Your task to perform on an android device: What's the weather today? Image 0: 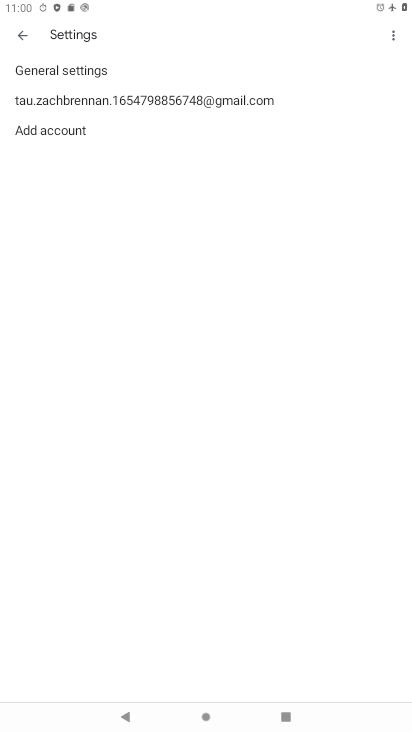
Step 0: click (20, 38)
Your task to perform on an android device: What's the weather today? Image 1: 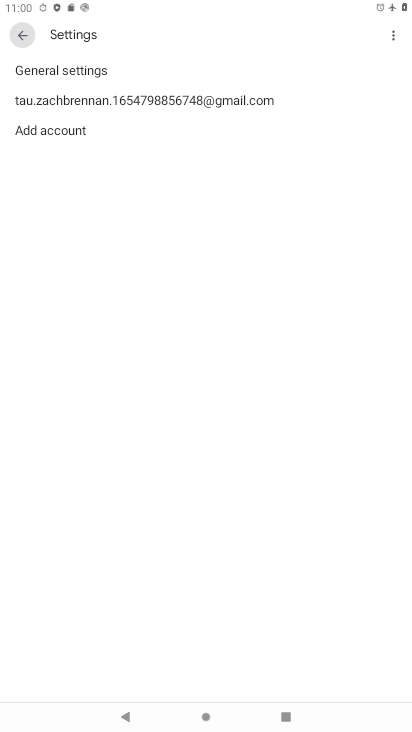
Step 1: click (25, 38)
Your task to perform on an android device: What's the weather today? Image 2: 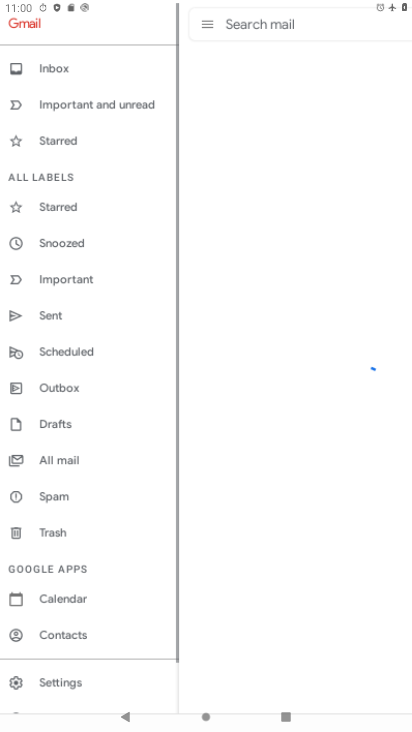
Step 2: click (26, 39)
Your task to perform on an android device: What's the weather today? Image 3: 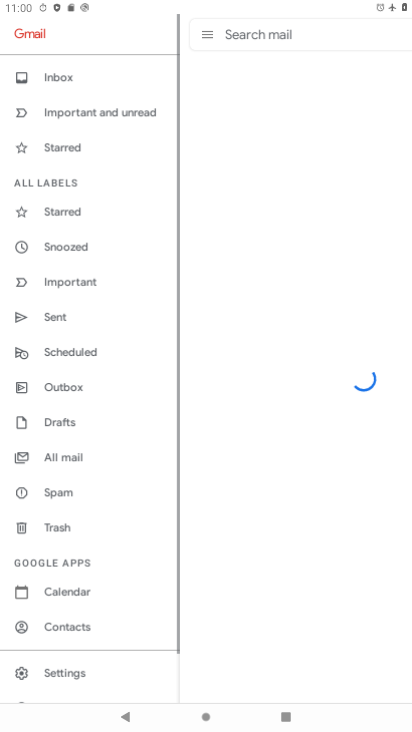
Step 3: click (21, 38)
Your task to perform on an android device: What's the weather today? Image 4: 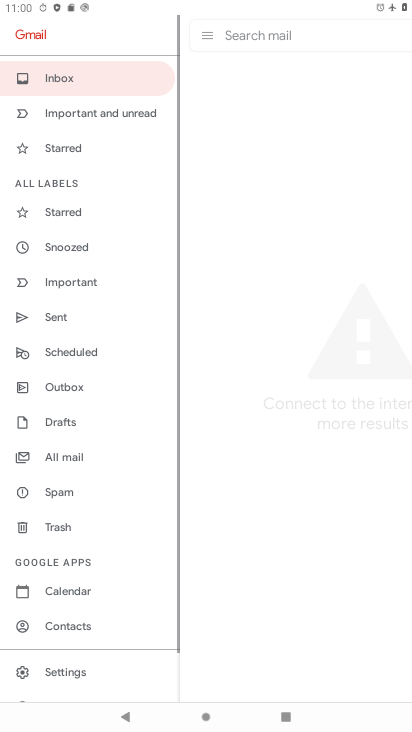
Step 4: click (21, 38)
Your task to perform on an android device: What's the weather today? Image 5: 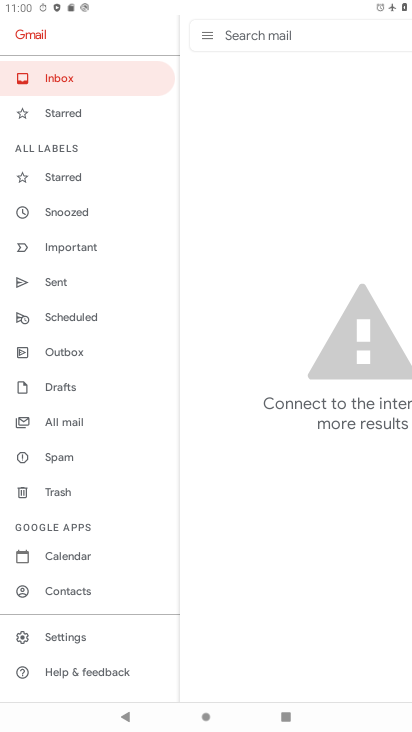
Step 5: click (24, 37)
Your task to perform on an android device: What's the weather today? Image 6: 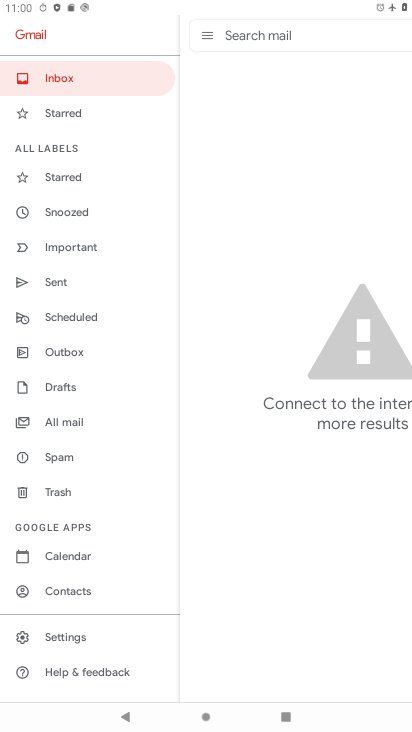
Step 6: press home button
Your task to perform on an android device: What's the weather today? Image 7: 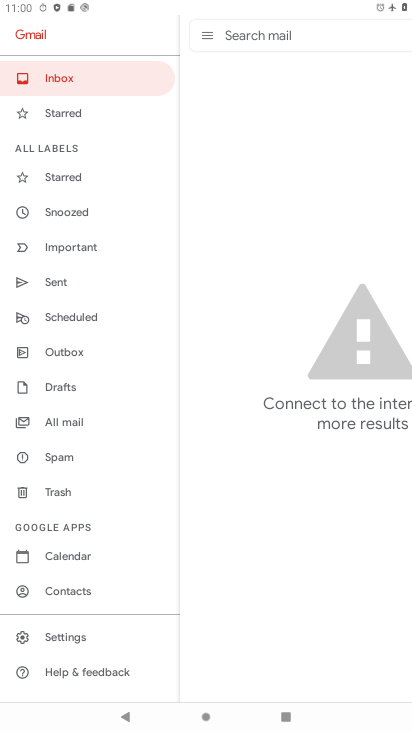
Step 7: press home button
Your task to perform on an android device: What's the weather today? Image 8: 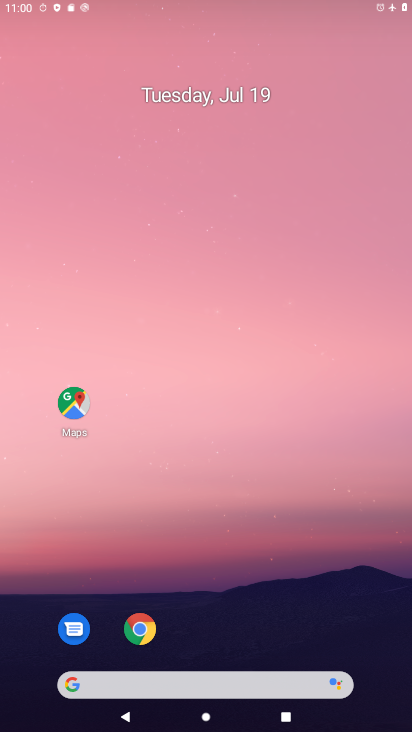
Step 8: press home button
Your task to perform on an android device: What's the weather today? Image 9: 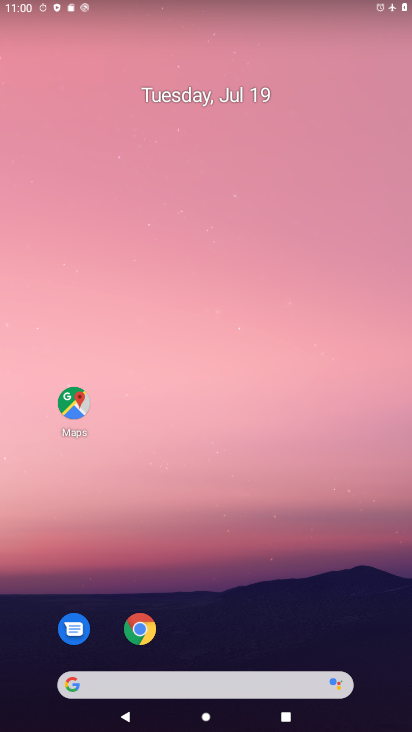
Step 9: press home button
Your task to perform on an android device: What's the weather today? Image 10: 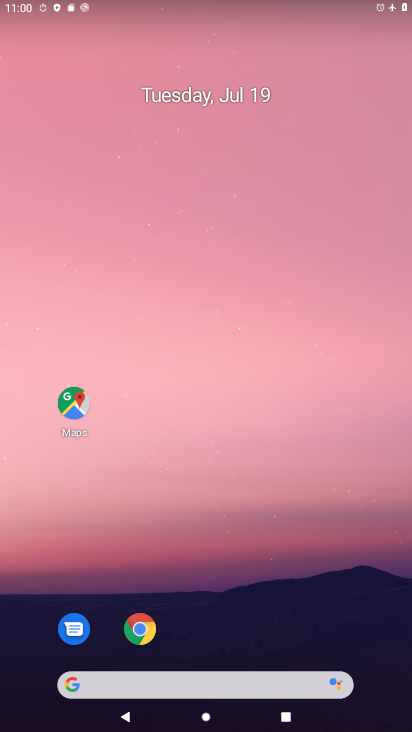
Step 10: drag from (172, 555) to (110, 103)
Your task to perform on an android device: What's the weather today? Image 11: 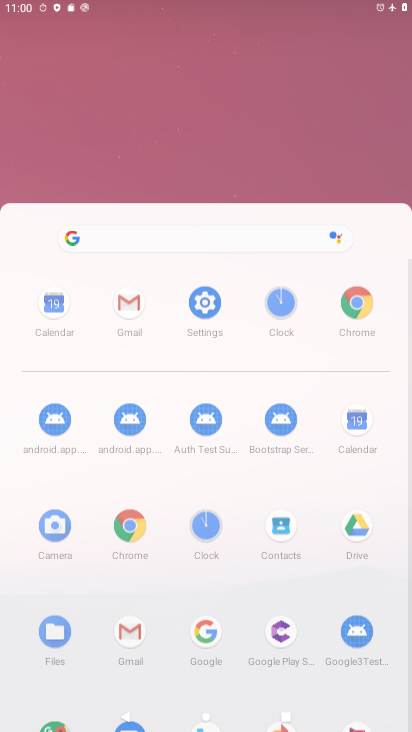
Step 11: drag from (167, 496) to (140, 4)
Your task to perform on an android device: What's the weather today? Image 12: 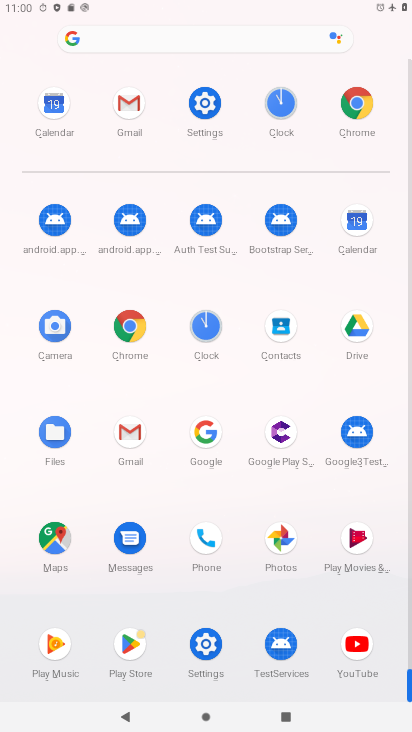
Step 12: click (357, 98)
Your task to perform on an android device: What's the weather today? Image 13: 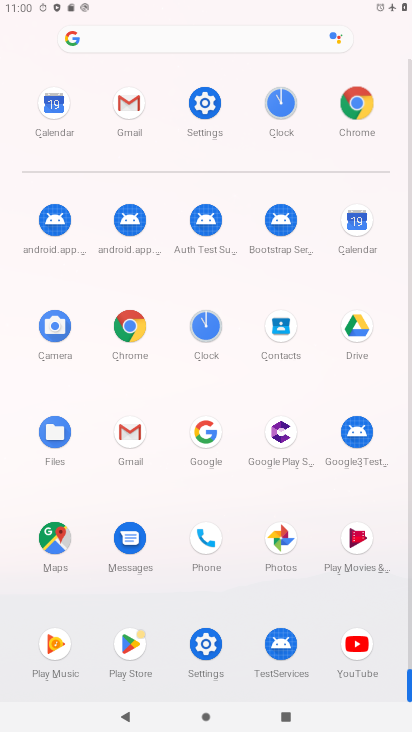
Step 13: click (360, 97)
Your task to perform on an android device: What's the weather today? Image 14: 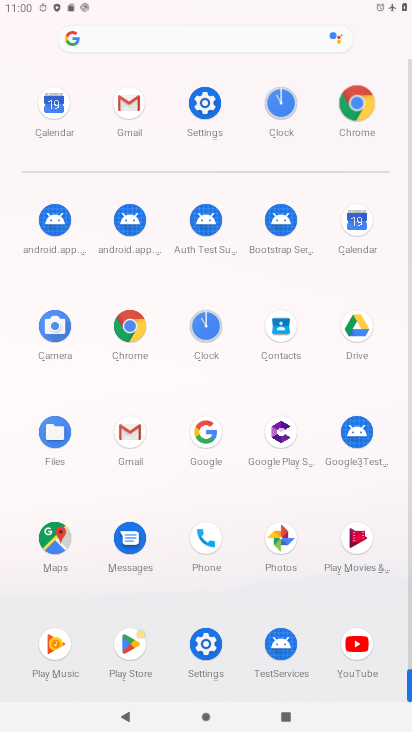
Step 14: click (360, 97)
Your task to perform on an android device: What's the weather today? Image 15: 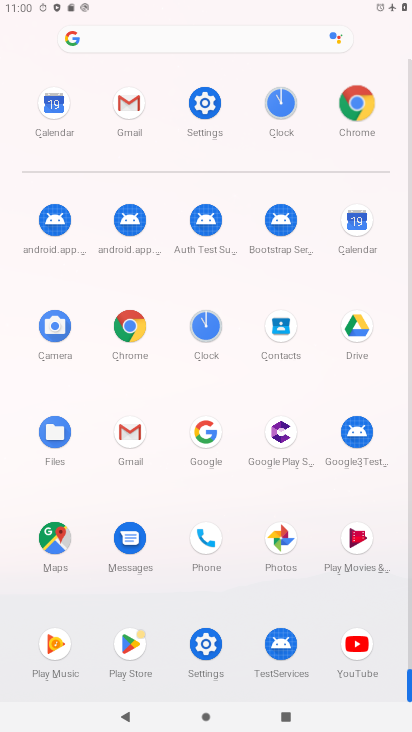
Step 15: click (360, 97)
Your task to perform on an android device: What's the weather today? Image 16: 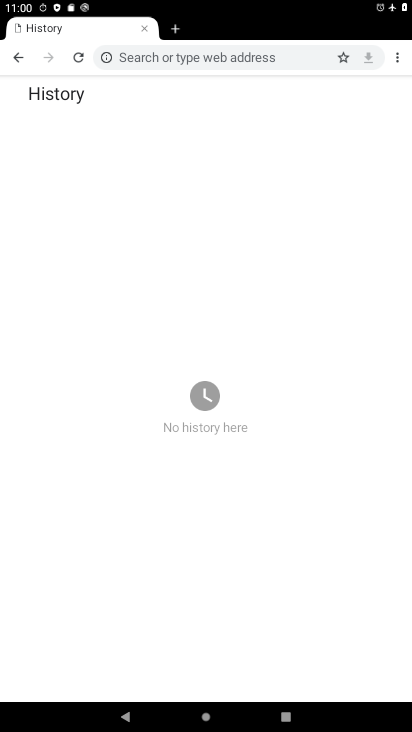
Step 16: drag from (399, 53) to (292, 51)
Your task to perform on an android device: What's the weather today? Image 17: 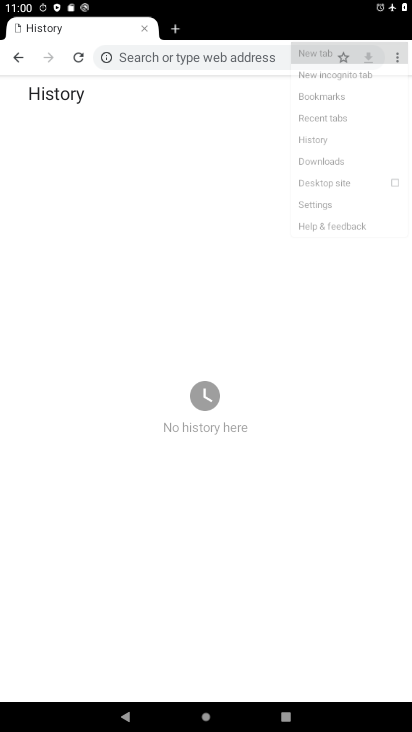
Step 17: click (292, 51)
Your task to perform on an android device: What's the weather today? Image 18: 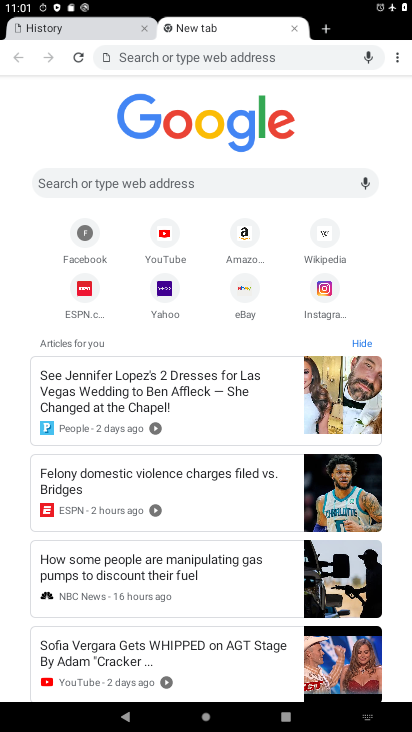
Step 18: click (83, 185)
Your task to perform on an android device: What's the weather today? Image 19: 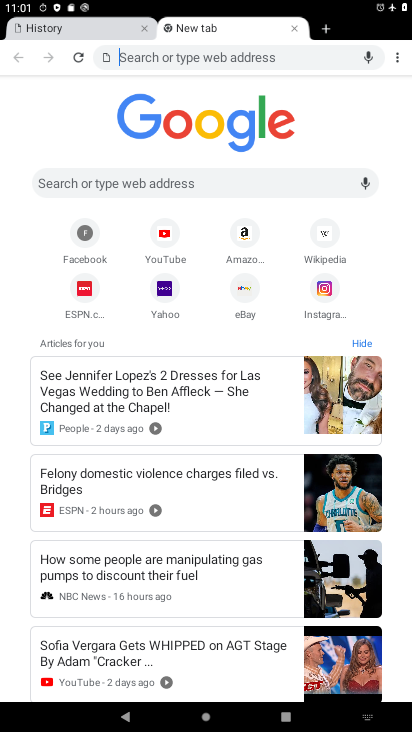
Step 19: click (82, 193)
Your task to perform on an android device: What's the weather today? Image 20: 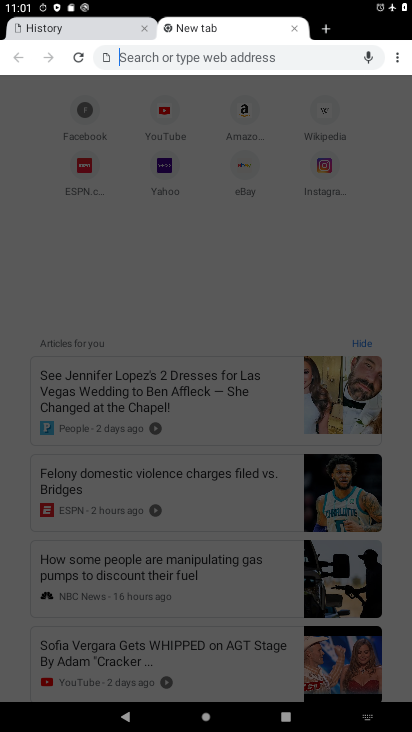
Step 20: click (84, 192)
Your task to perform on an android device: What's the weather today? Image 21: 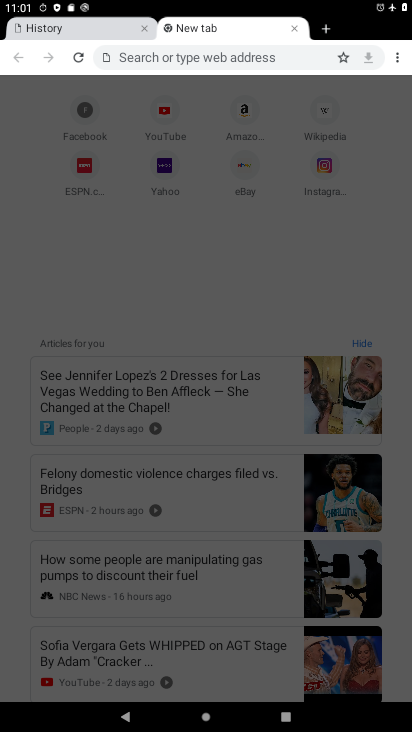
Step 21: click (90, 186)
Your task to perform on an android device: What's the weather today? Image 22: 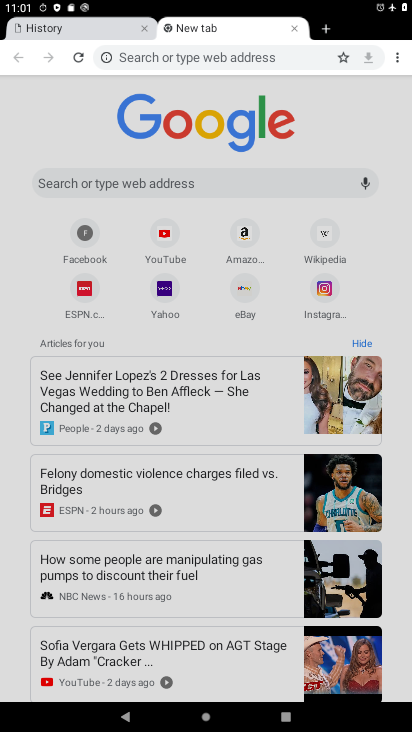
Step 22: click (91, 187)
Your task to perform on an android device: What's the weather today? Image 23: 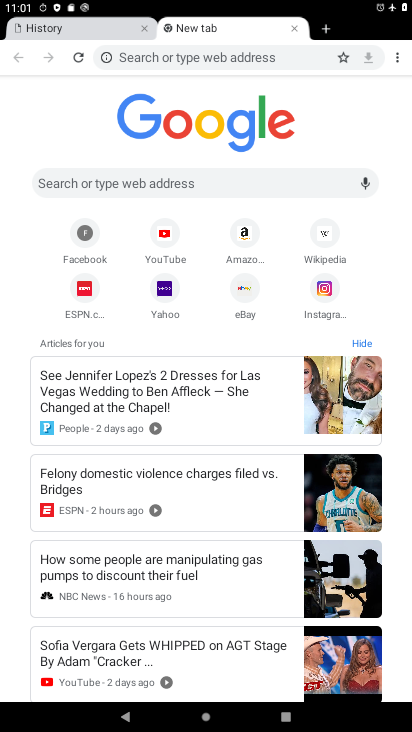
Step 23: click (86, 176)
Your task to perform on an android device: What's the weather today? Image 24: 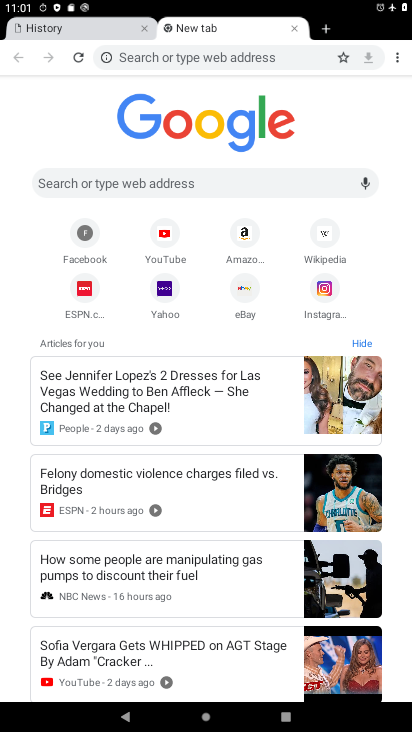
Step 24: click (85, 176)
Your task to perform on an android device: What's the weather today? Image 25: 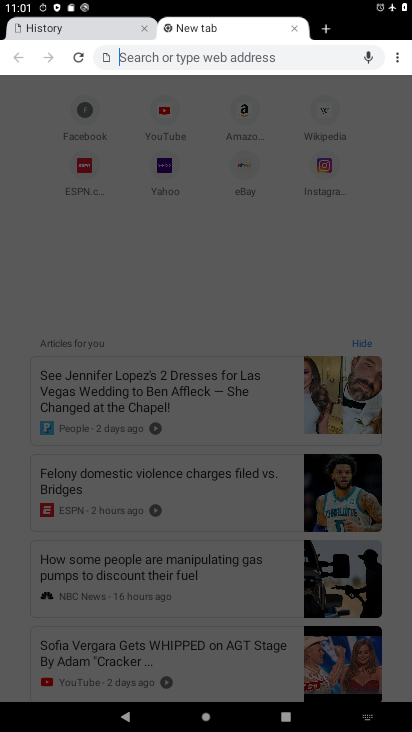
Step 25: click (85, 176)
Your task to perform on an android device: What's the weather today? Image 26: 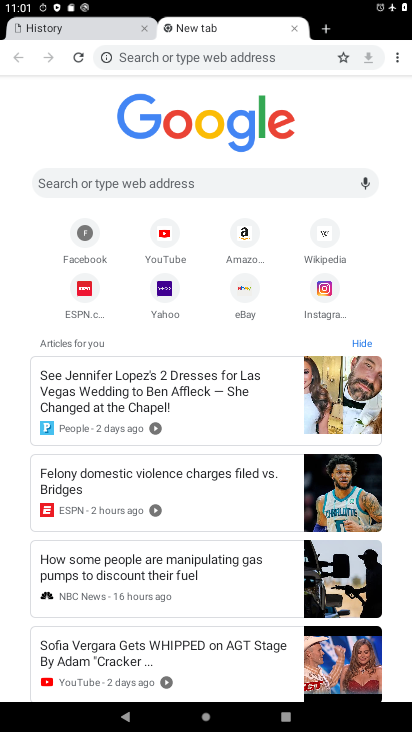
Step 26: click (95, 183)
Your task to perform on an android device: What's the weather today? Image 27: 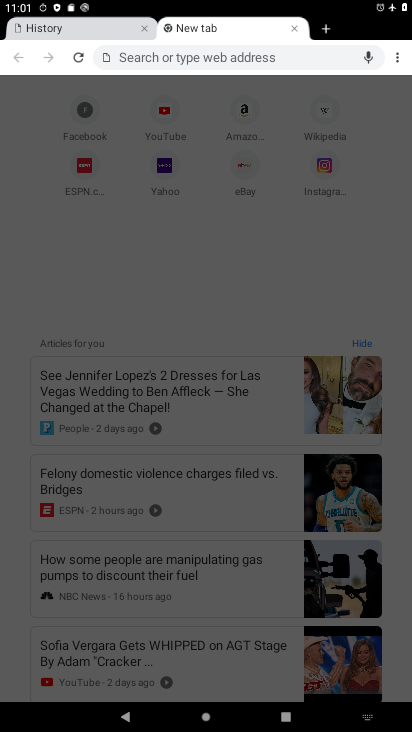
Step 27: type "weather?"
Your task to perform on an android device: What's the weather today? Image 28: 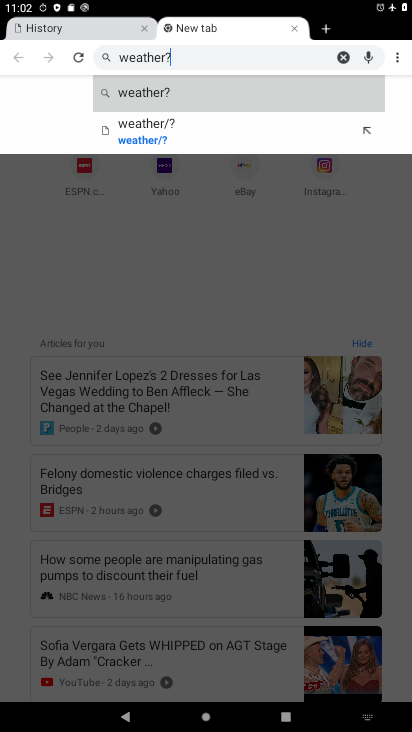
Step 28: click (162, 121)
Your task to perform on an android device: What's the weather today? Image 29: 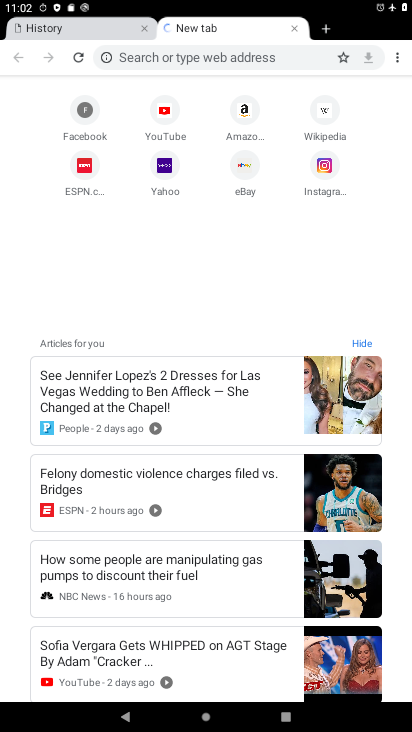
Step 29: click (147, 100)
Your task to perform on an android device: What's the weather today? Image 30: 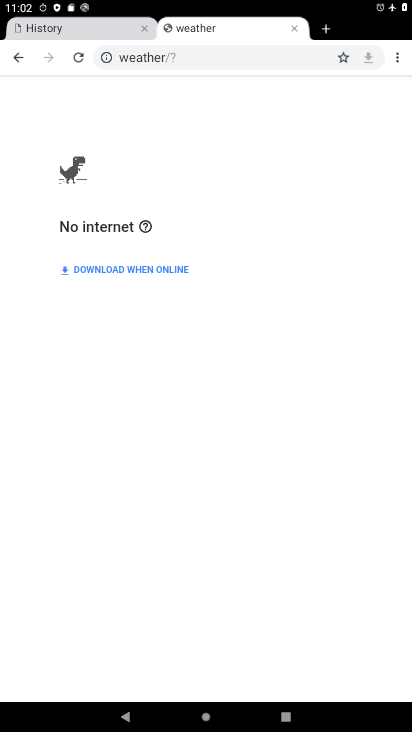
Step 30: task complete